Your task to perform on an android device: Add "razer blackwidow" to the cart on bestbuy.com, then select checkout. Image 0: 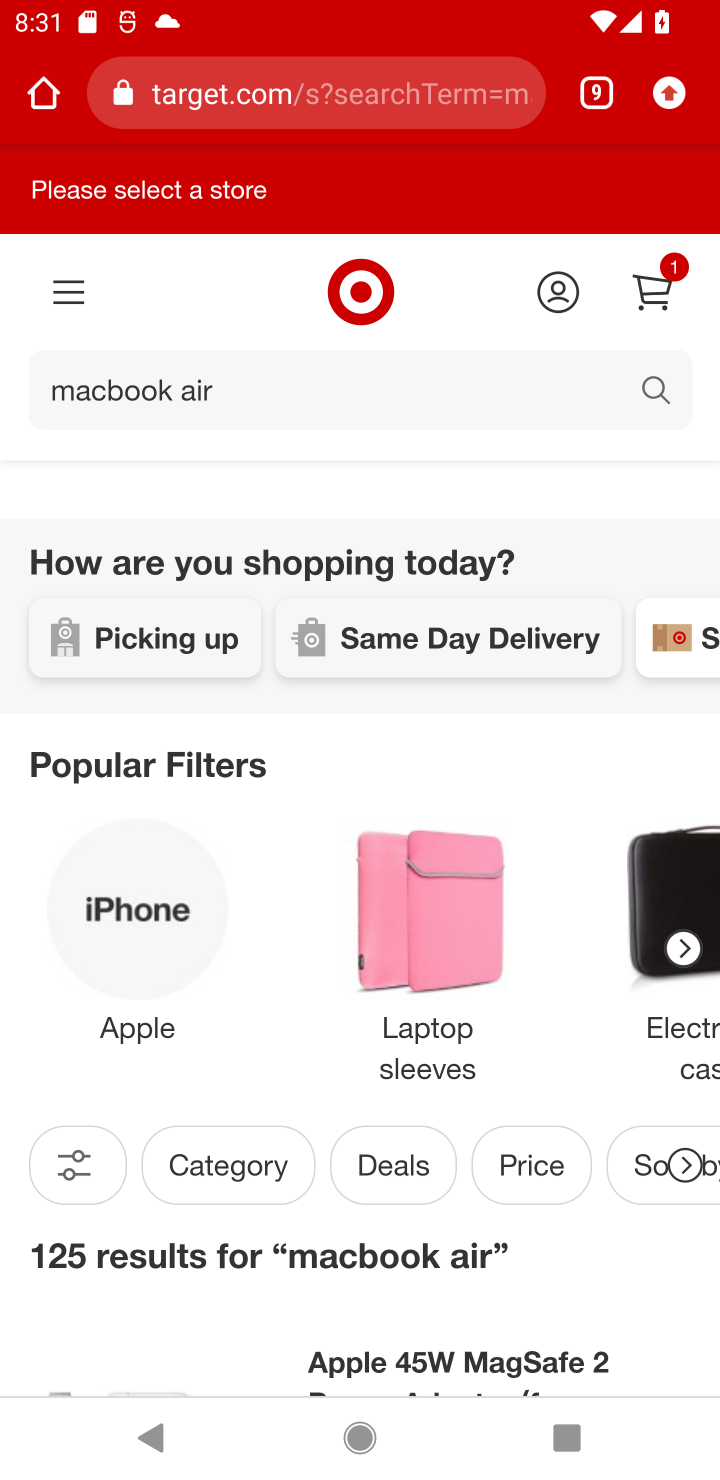
Step 0: task complete